Your task to perform on an android device: Open Reddit.com Image 0: 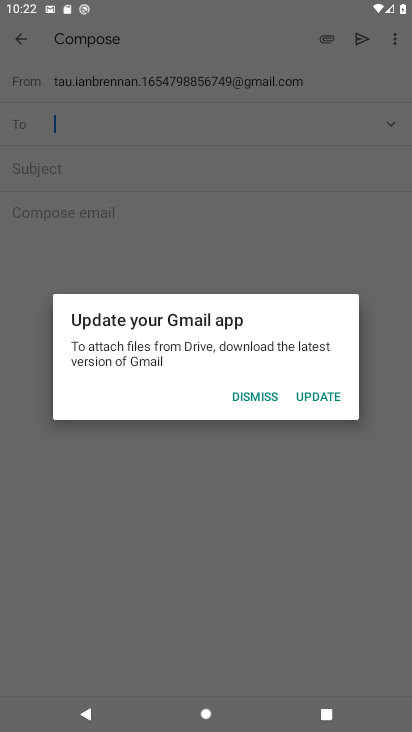
Step 0: press home button
Your task to perform on an android device: Open Reddit.com Image 1: 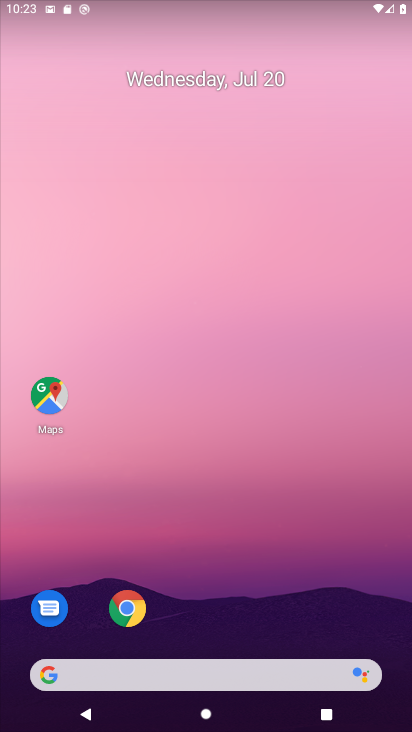
Step 1: click (145, 675)
Your task to perform on an android device: Open Reddit.com Image 2: 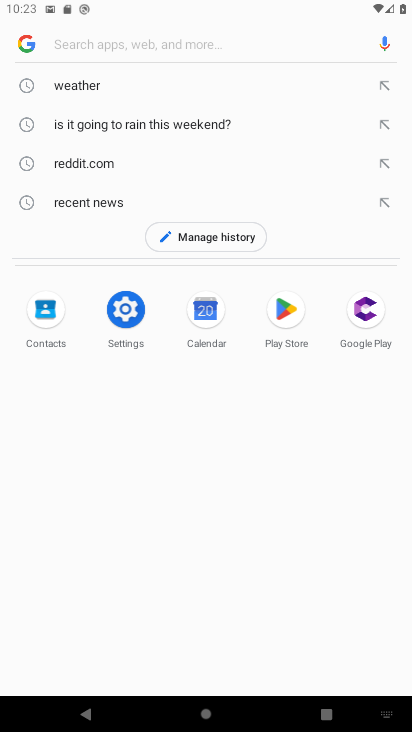
Step 2: type "Reddit.com"
Your task to perform on an android device: Open Reddit.com Image 3: 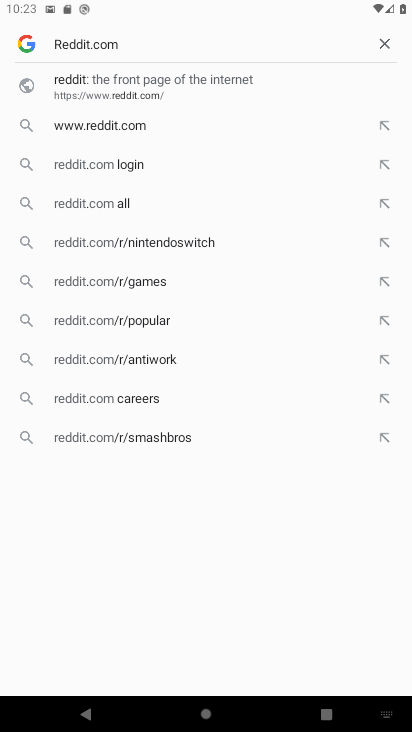
Step 3: press enter
Your task to perform on an android device: Open Reddit.com Image 4: 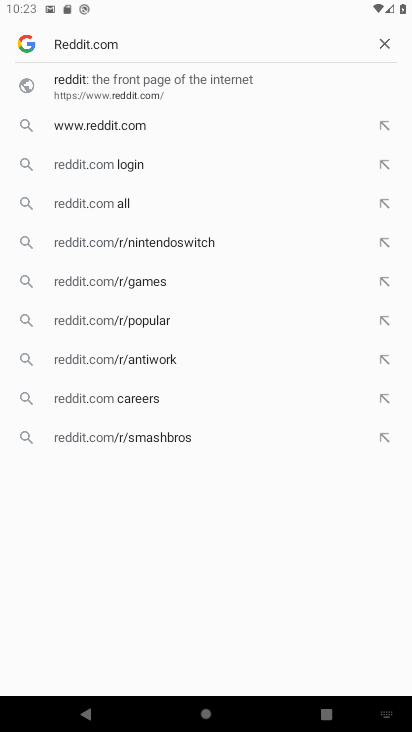
Step 4: type ""
Your task to perform on an android device: Open Reddit.com Image 5: 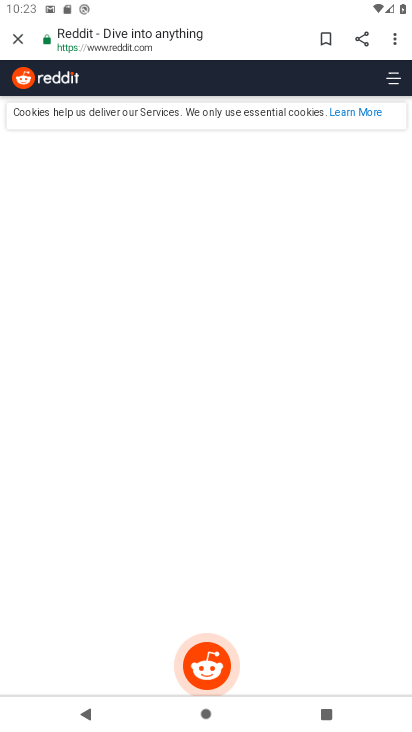
Step 5: task complete